Your task to perform on an android device: turn off picture-in-picture Image 0: 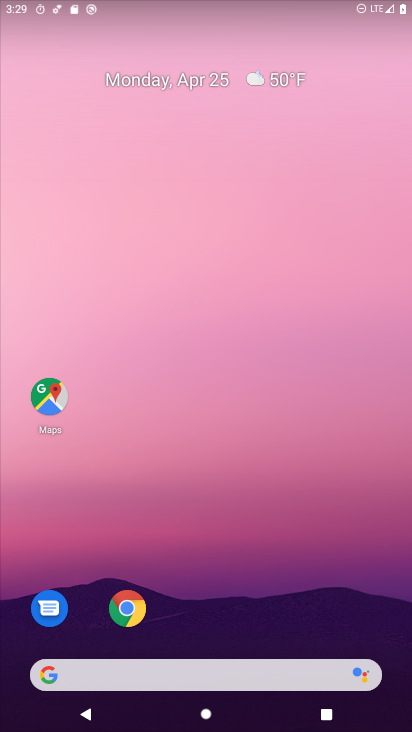
Step 0: click (133, 603)
Your task to perform on an android device: turn off picture-in-picture Image 1: 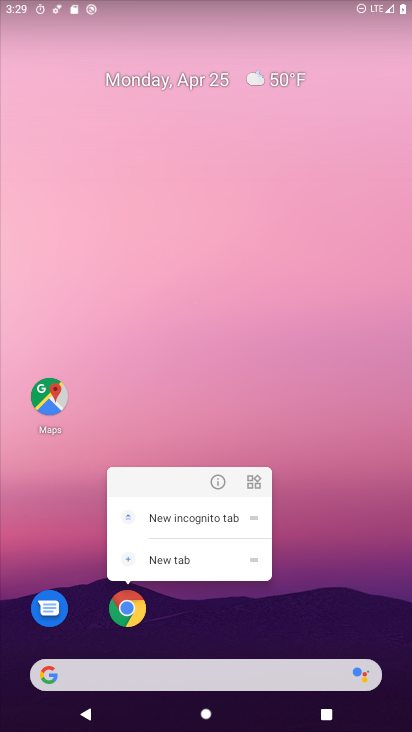
Step 1: click (215, 491)
Your task to perform on an android device: turn off picture-in-picture Image 2: 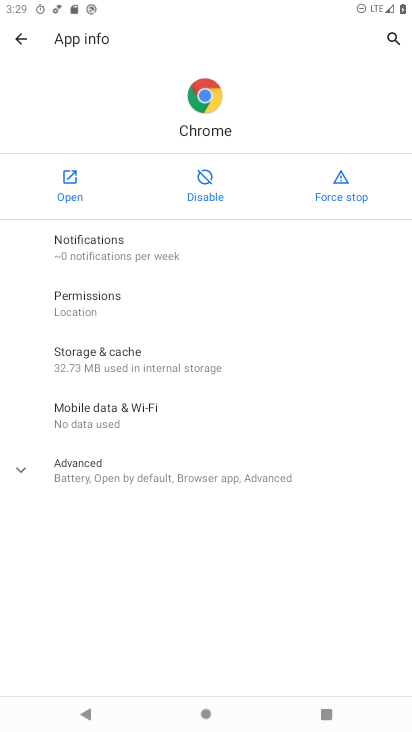
Step 2: click (139, 470)
Your task to perform on an android device: turn off picture-in-picture Image 3: 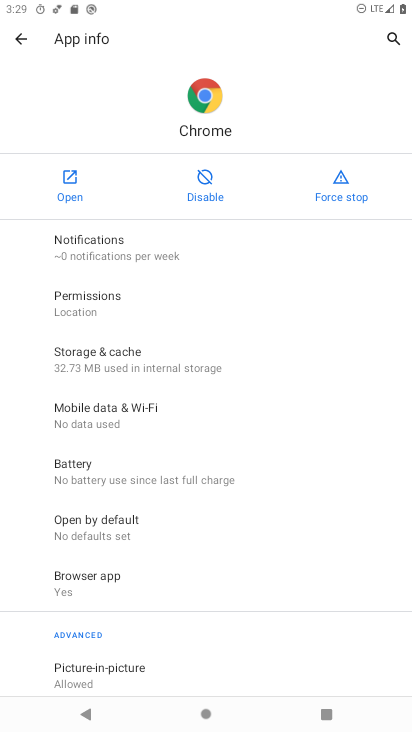
Step 3: drag from (161, 650) to (199, 474)
Your task to perform on an android device: turn off picture-in-picture Image 4: 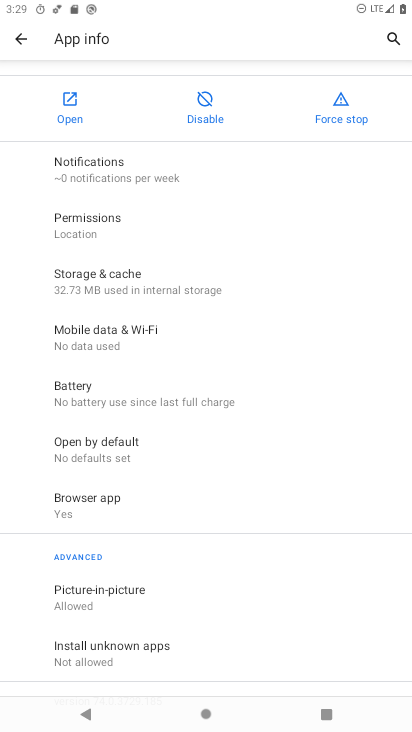
Step 4: click (128, 588)
Your task to perform on an android device: turn off picture-in-picture Image 5: 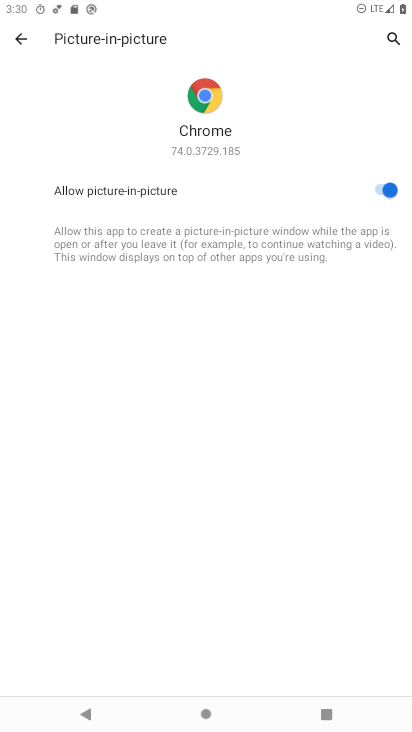
Step 5: click (368, 188)
Your task to perform on an android device: turn off picture-in-picture Image 6: 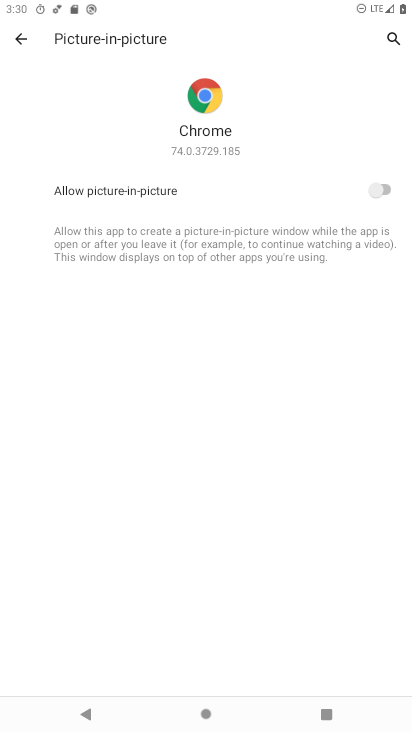
Step 6: task complete